Your task to perform on an android device: See recent photos Image 0: 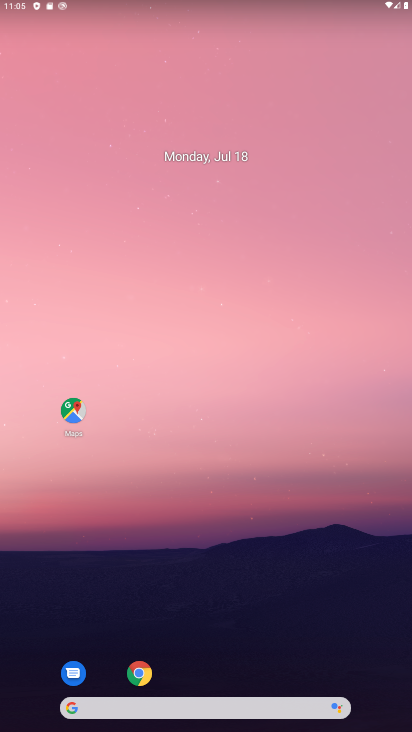
Step 0: press home button
Your task to perform on an android device: See recent photos Image 1: 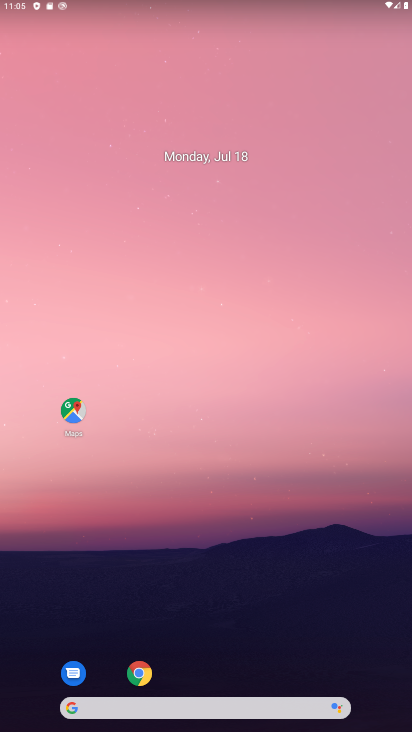
Step 1: drag from (214, 679) to (245, 1)
Your task to perform on an android device: See recent photos Image 2: 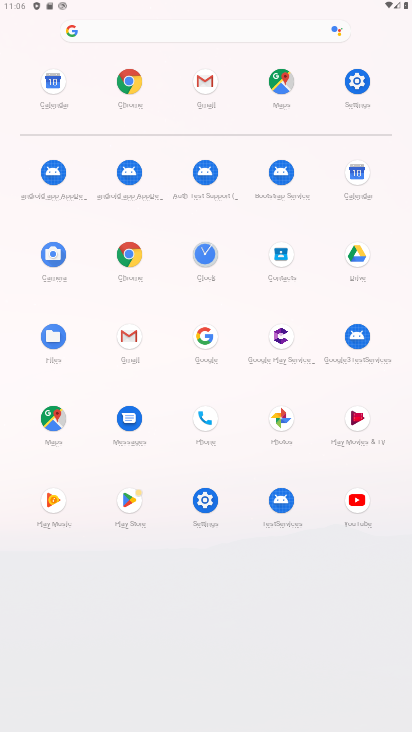
Step 2: click (278, 414)
Your task to perform on an android device: See recent photos Image 3: 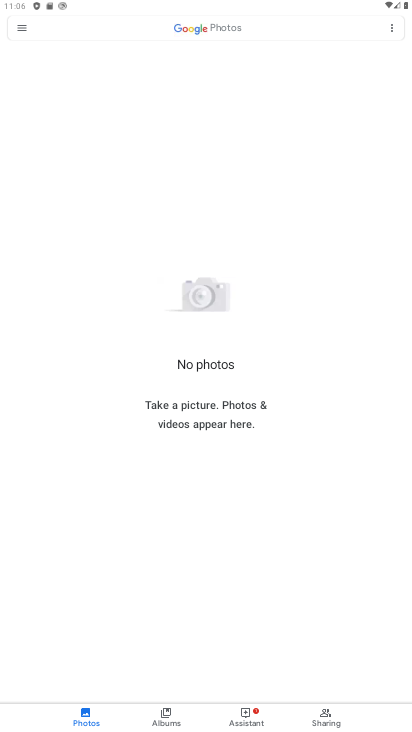
Step 3: click (90, 708)
Your task to perform on an android device: See recent photos Image 4: 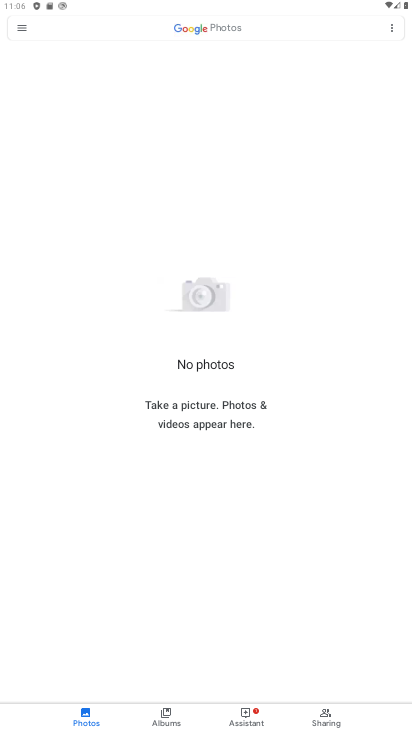
Step 4: task complete